Your task to perform on an android device: Go to Reddit.com Image 0: 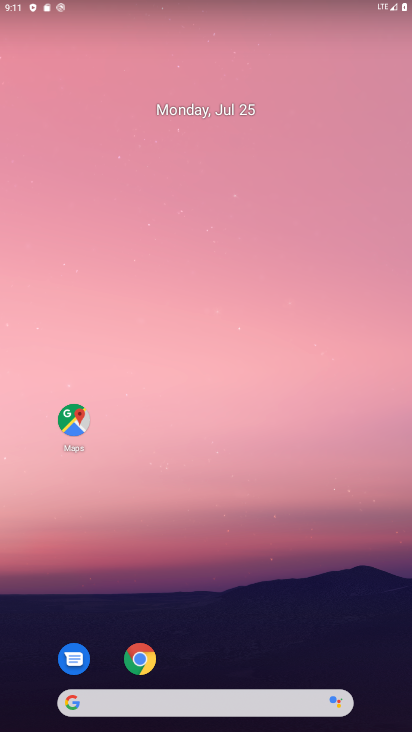
Step 0: click (137, 660)
Your task to perform on an android device: Go to Reddit.com Image 1: 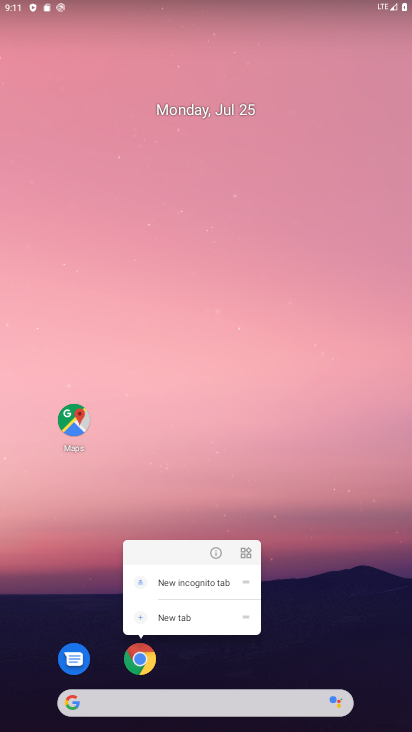
Step 1: click (145, 665)
Your task to perform on an android device: Go to Reddit.com Image 2: 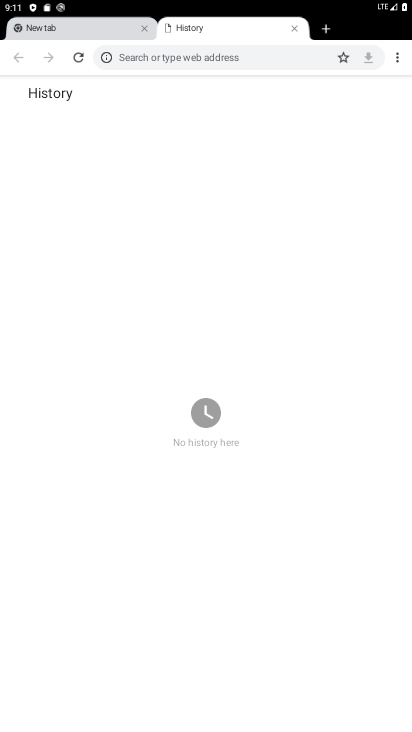
Step 2: click (292, 31)
Your task to perform on an android device: Go to Reddit.com Image 3: 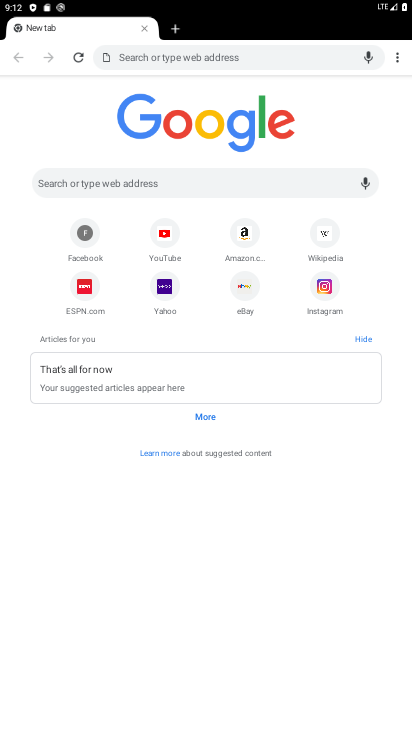
Step 3: type "reddit.com"
Your task to perform on an android device: Go to Reddit.com Image 4: 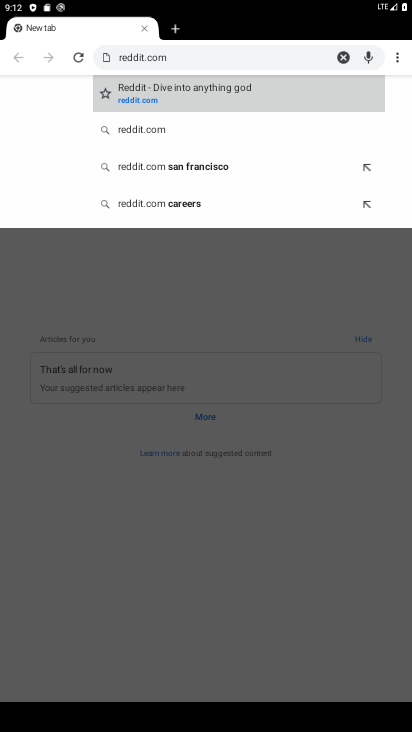
Step 4: click (168, 84)
Your task to perform on an android device: Go to Reddit.com Image 5: 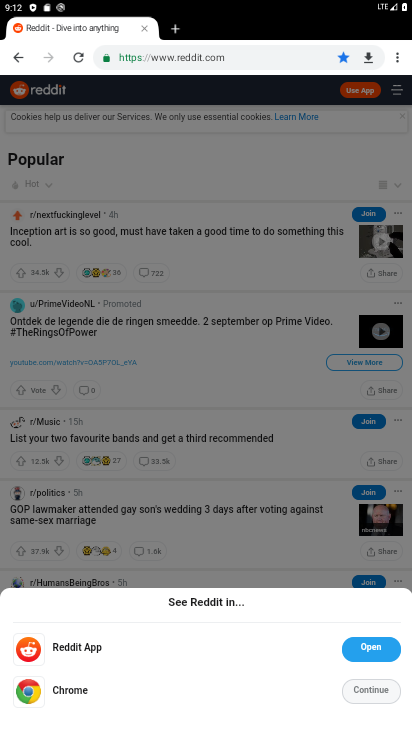
Step 5: task complete